Your task to perform on an android device: turn on wifi Image 0: 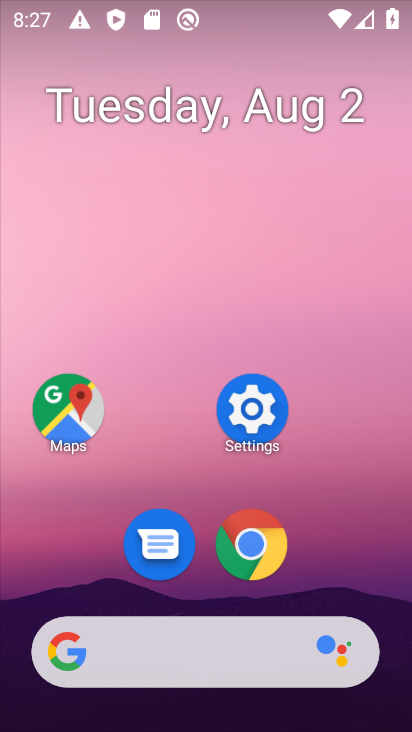
Step 0: drag from (186, 650) to (320, 17)
Your task to perform on an android device: turn on wifi Image 1: 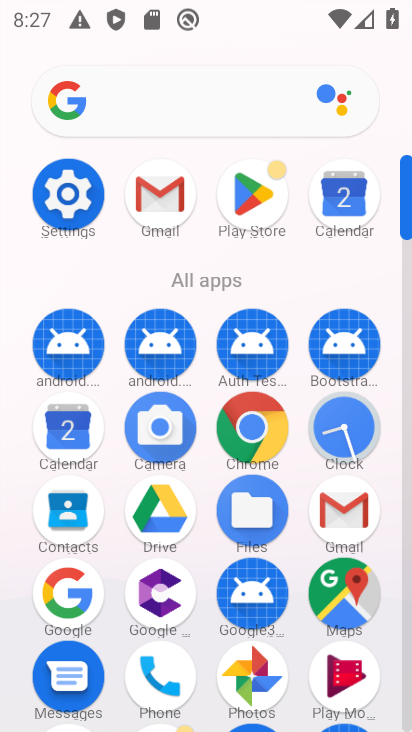
Step 1: click (77, 195)
Your task to perform on an android device: turn on wifi Image 2: 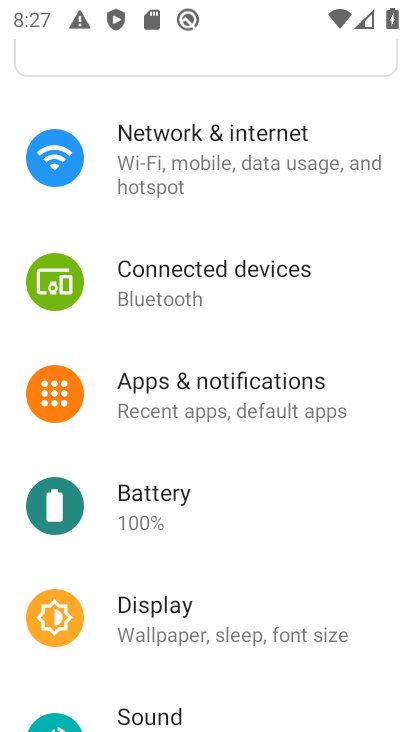
Step 2: drag from (315, 213) to (262, 563)
Your task to perform on an android device: turn on wifi Image 3: 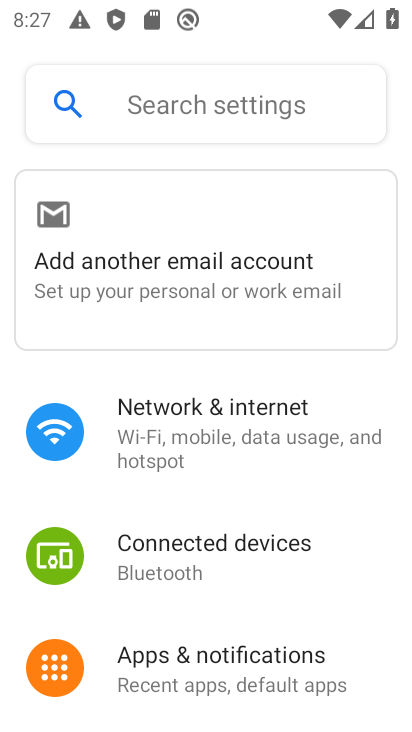
Step 3: click (221, 432)
Your task to perform on an android device: turn on wifi Image 4: 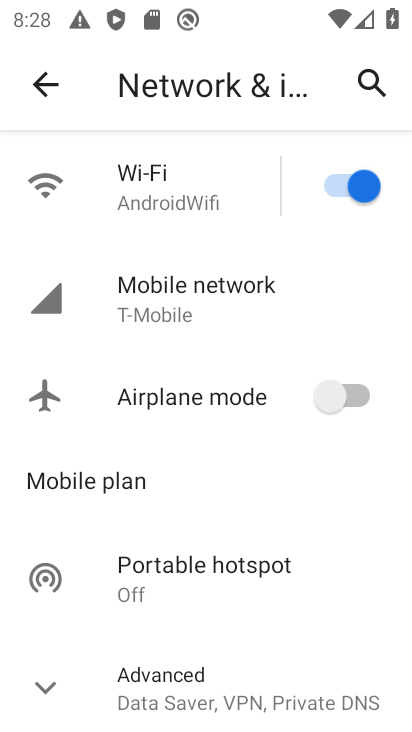
Step 4: task complete